Your task to perform on an android device: Look up the best gaming headphones on Best Buy Image 0: 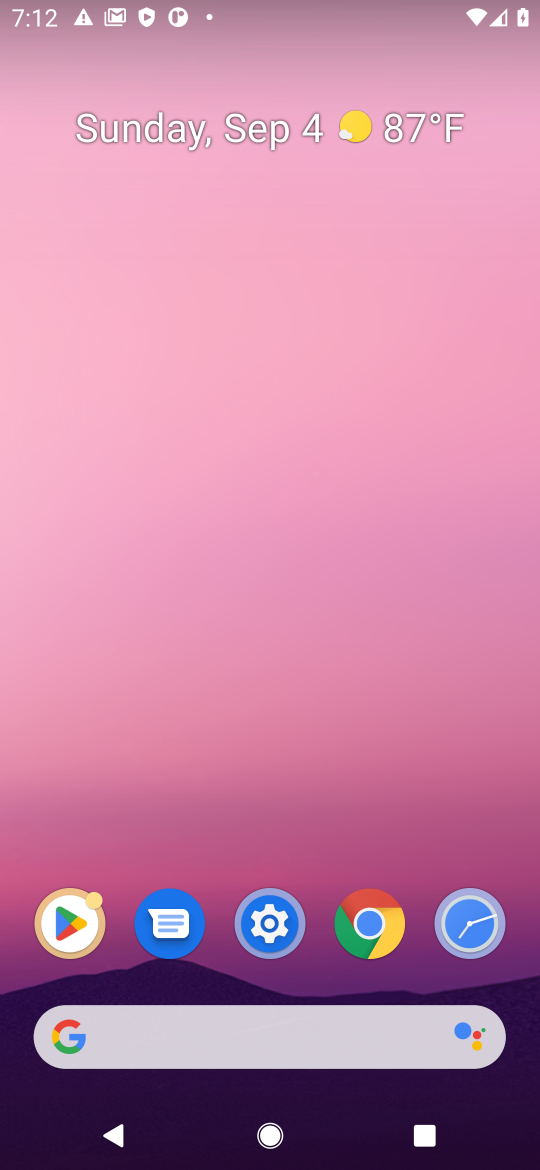
Step 0: press home button
Your task to perform on an android device: Look up the best gaming headphones on Best Buy Image 1: 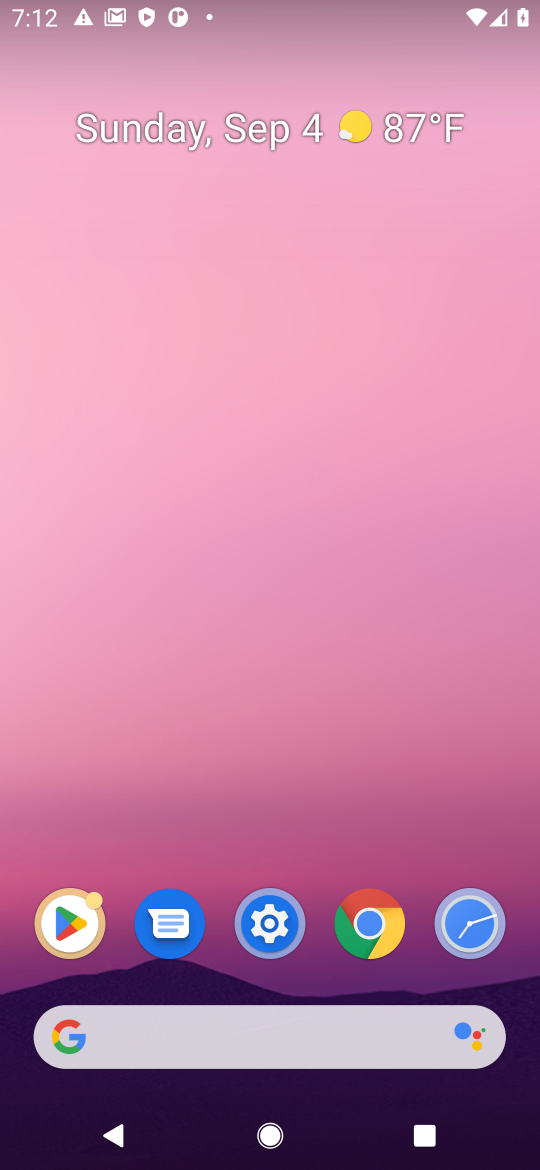
Step 1: click (346, 1041)
Your task to perform on an android device: Look up the best gaming headphones on Best Buy Image 2: 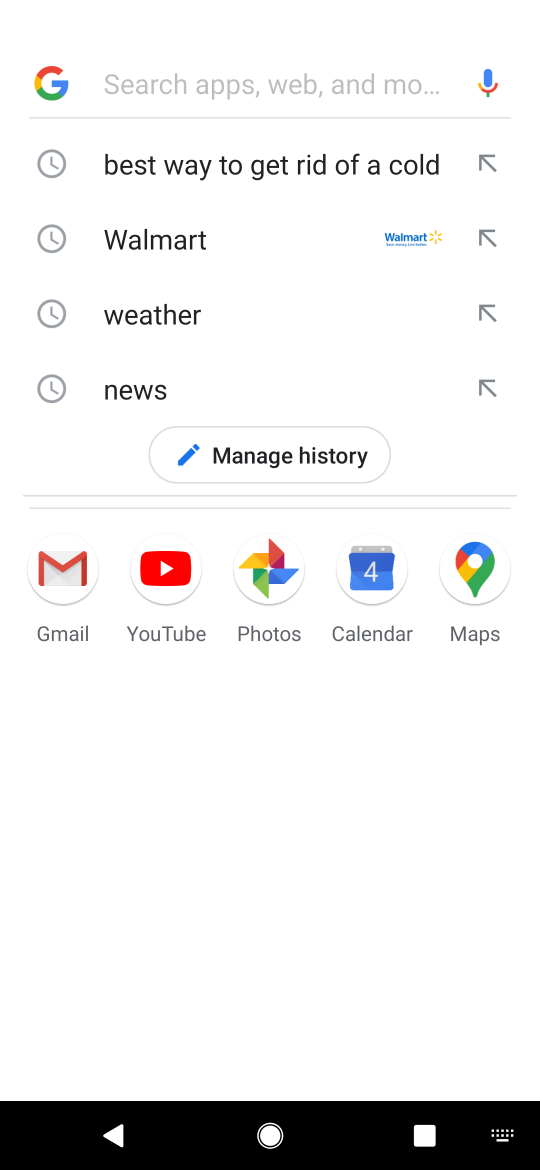
Step 2: press enter
Your task to perform on an android device: Look up the best gaming headphones on Best Buy Image 3: 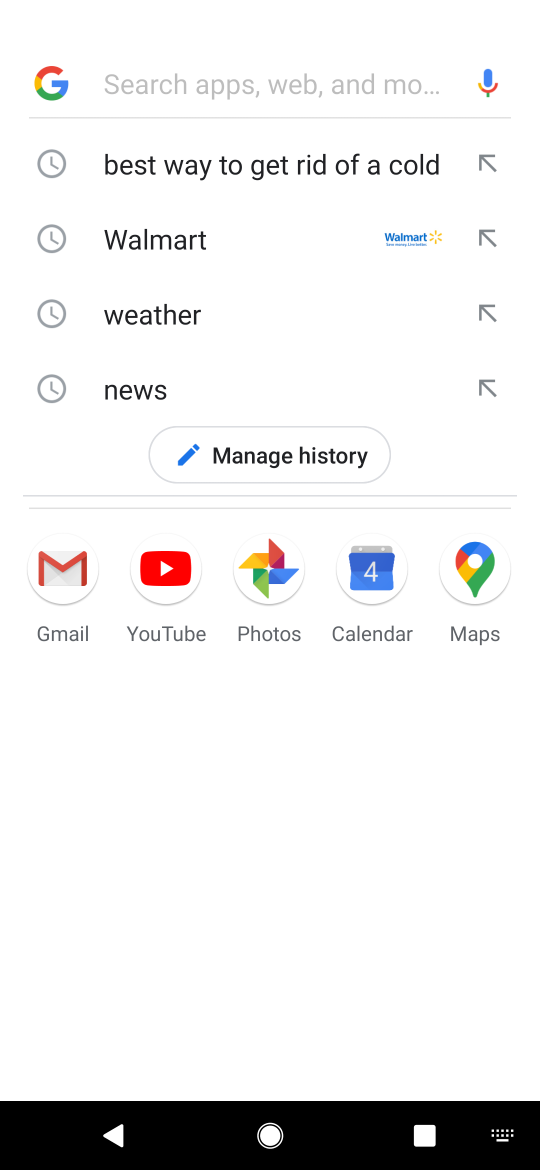
Step 3: type "best buy"
Your task to perform on an android device: Look up the best gaming headphones on Best Buy Image 4: 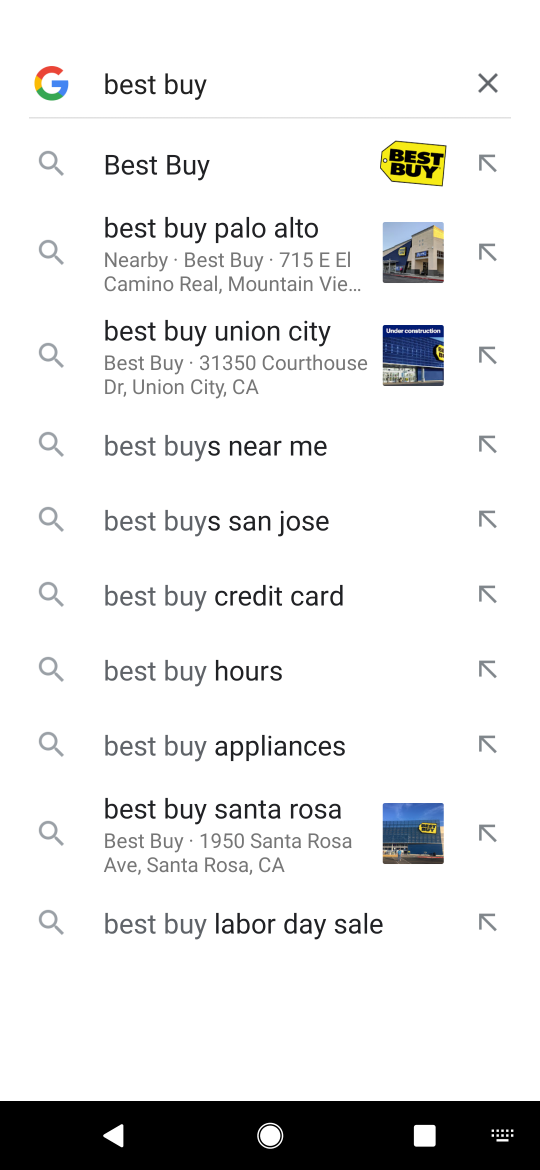
Step 4: click (163, 172)
Your task to perform on an android device: Look up the best gaming headphones on Best Buy Image 5: 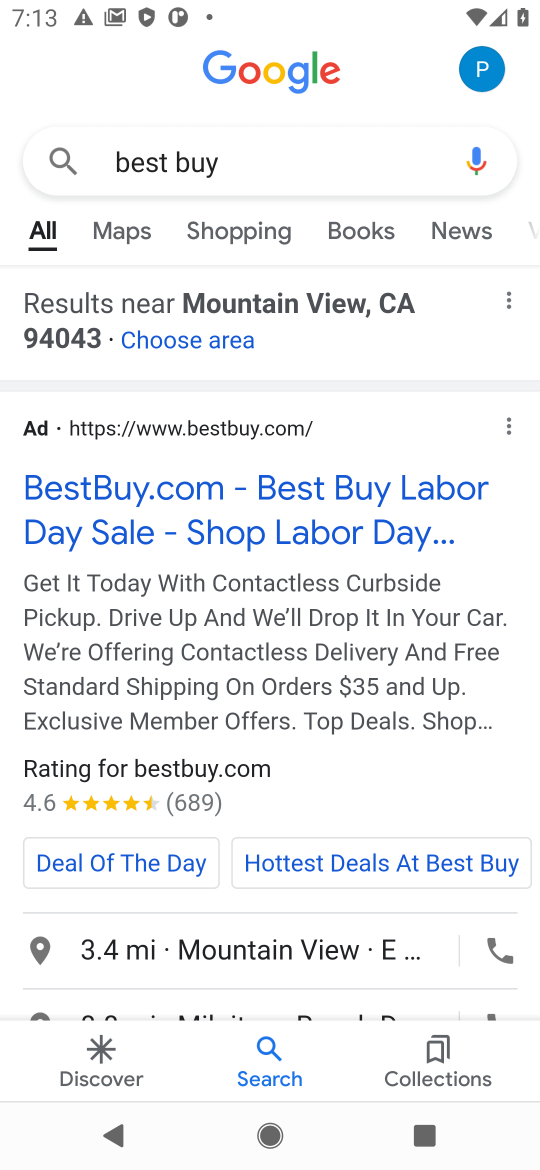
Step 5: click (193, 523)
Your task to perform on an android device: Look up the best gaming headphones on Best Buy Image 6: 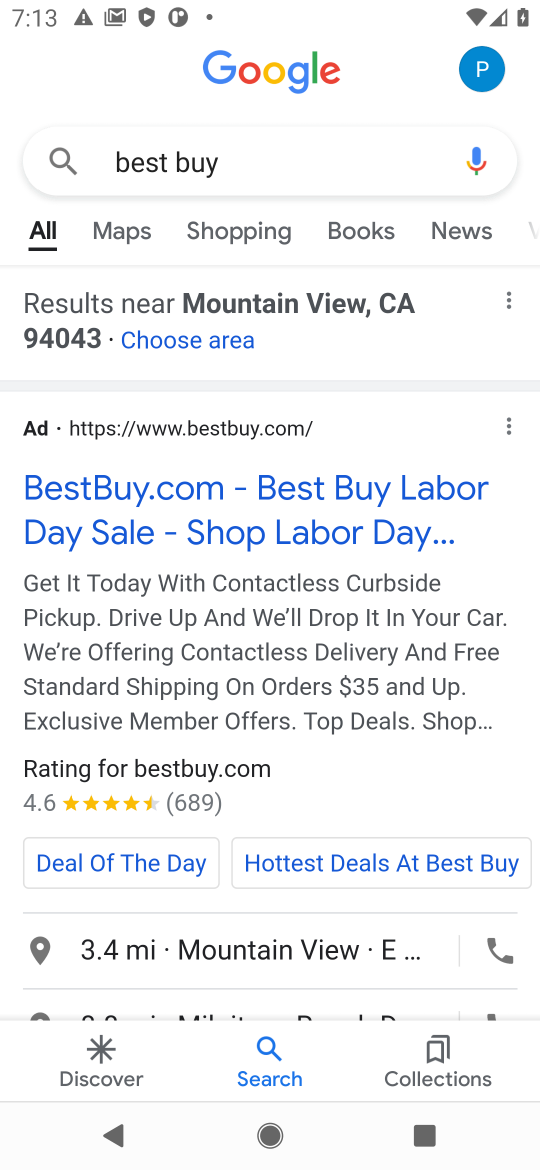
Step 6: click (221, 494)
Your task to perform on an android device: Look up the best gaming headphones on Best Buy Image 7: 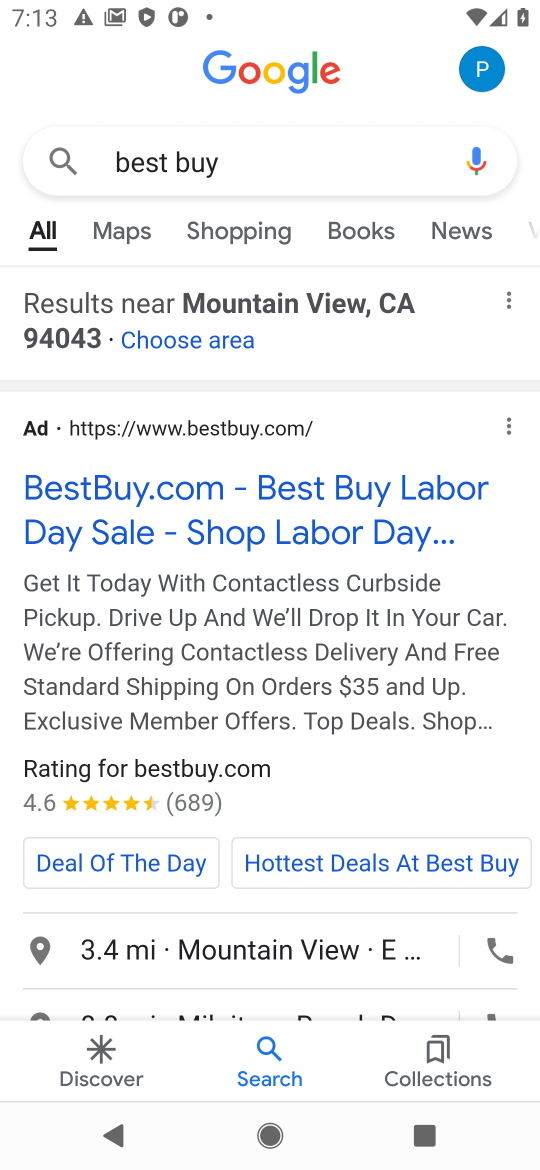
Step 7: click (164, 529)
Your task to perform on an android device: Look up the best gaming headphones on Best Buy Image 8: 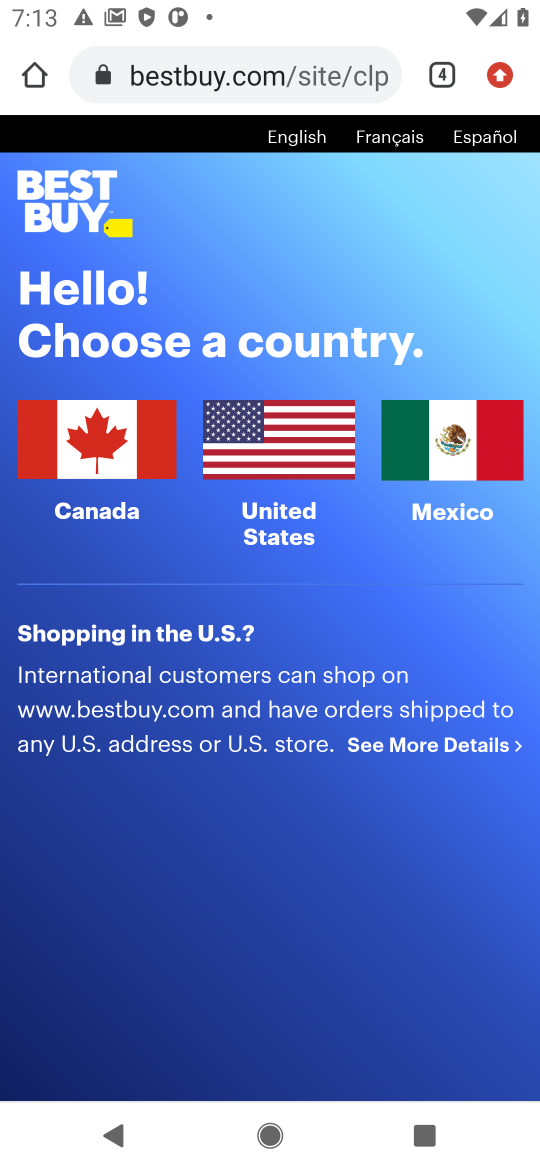
Step 8: click (90, 454)
Your task to perform on an android device: Look up the best gaming headphones on Best Buy Image 9: 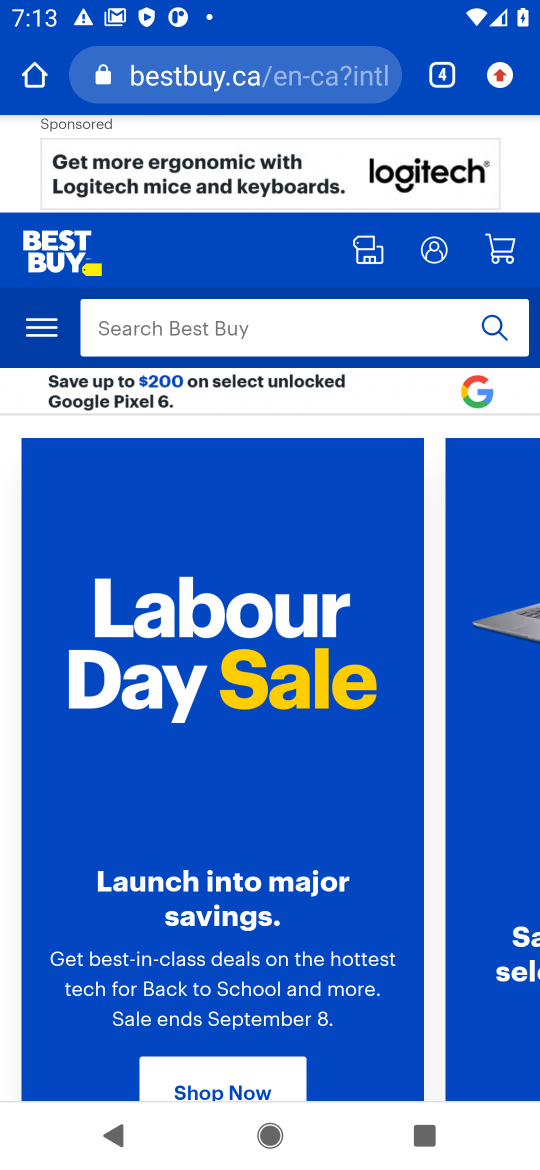
Step 9: click (309, 327)
Your task to perform on an android device: Look up the best gaming headphones on Best Buy Image 10: 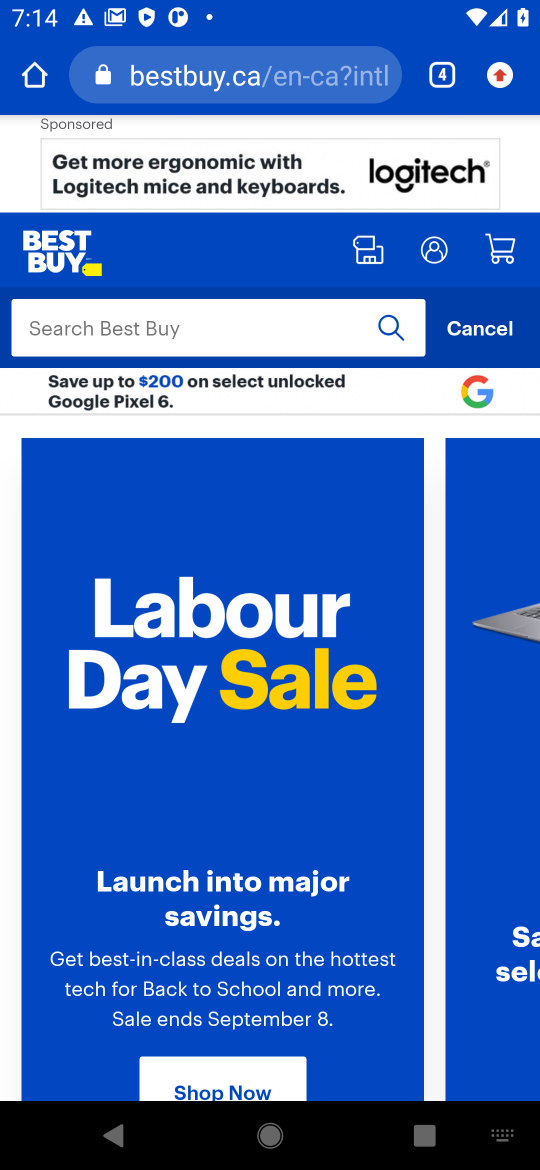
Step 10: press enter
Your task to perform on an android device: Look up the best gaming headphones on Best Buy Image 11: 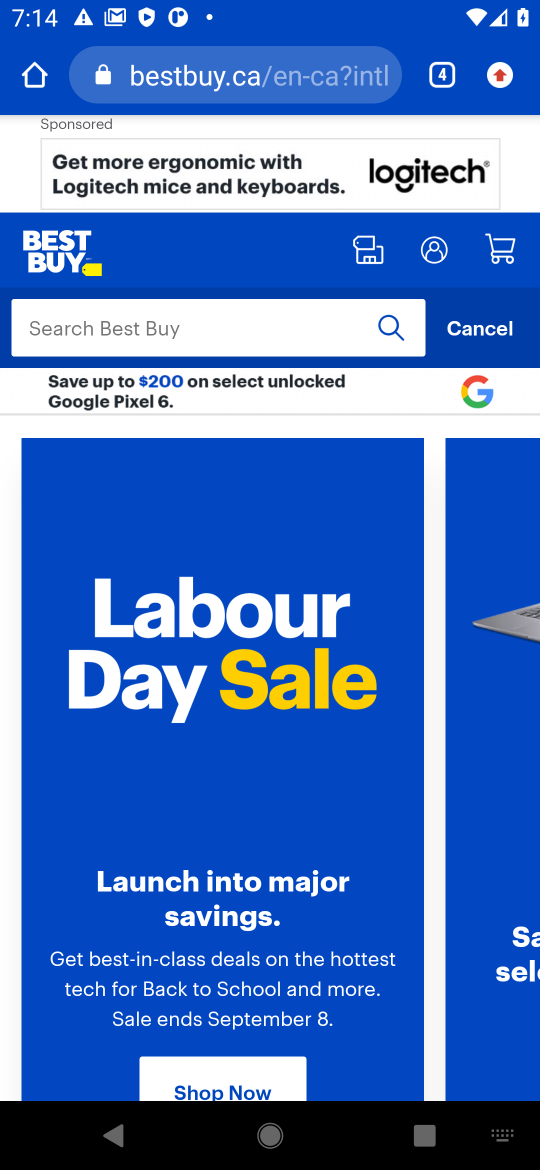
Step 11: type "gaming headphones"
Your task to perform on an android device: Look up the best gaming headphones on Best Buy Image 12: 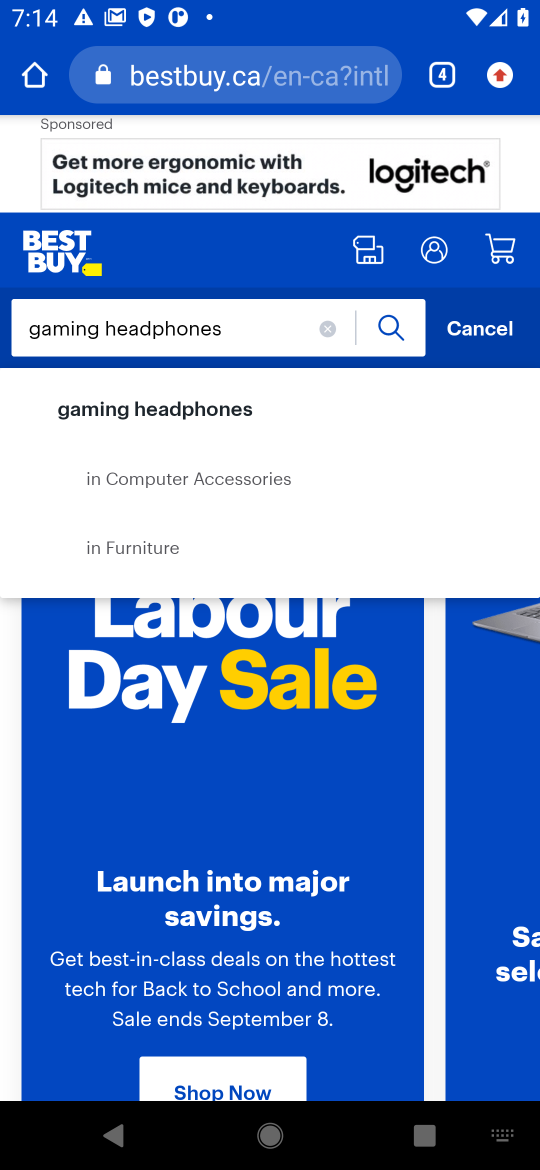
Step 12: click (204, 409)
Your task to perform on an android device: Look up the best gaming headphones on Best Buy Image 13: 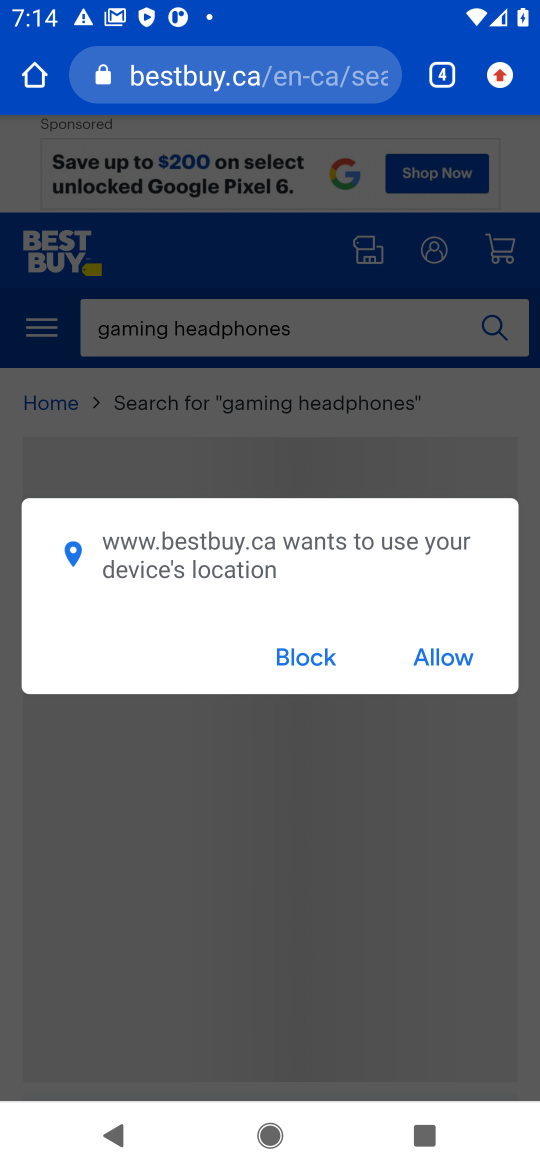
Step 13: click (316, 653)
Your task to perform on an android device: Look up the best gaming headphones on Best Buy Image 14: 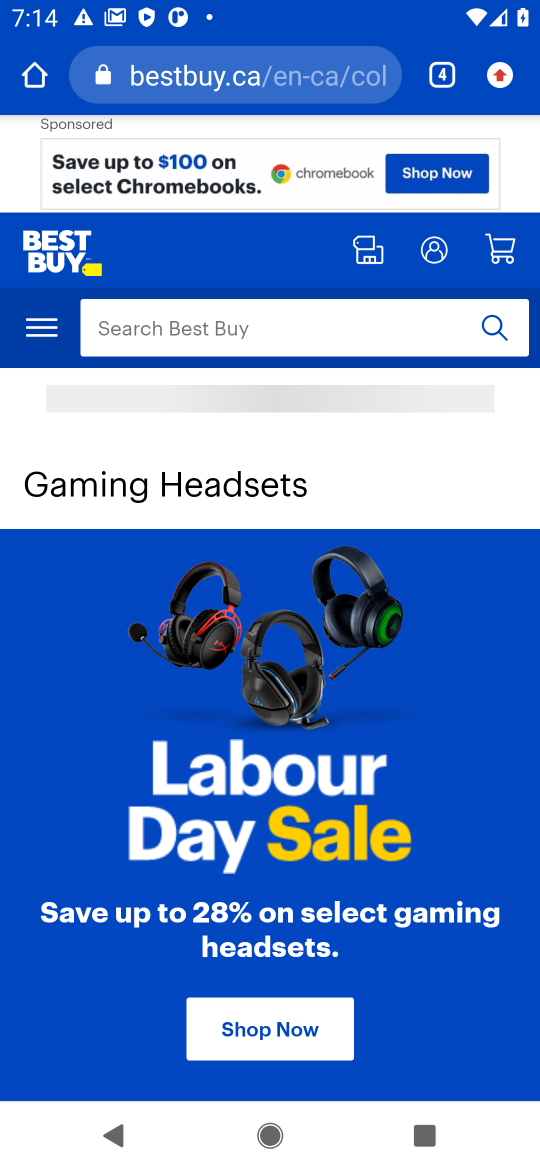
Step 14: task complete